Your task to perform on an android device: open the mobile data screen to see how much data has been used Image 0: 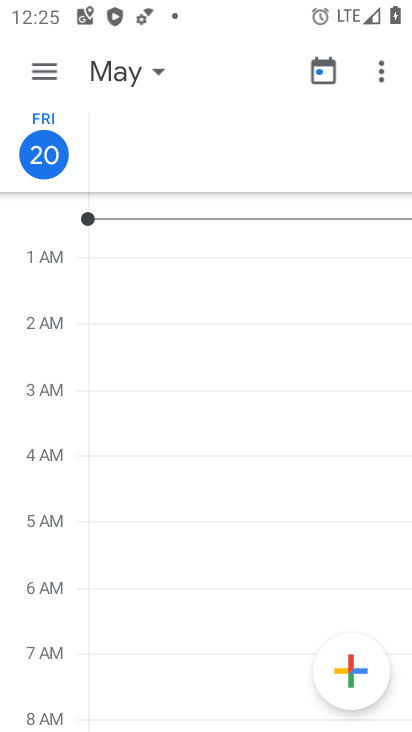
Step 0: press home button
Your task to perform on an android device: open the mobile data screen to see how much data has been used Image 1: 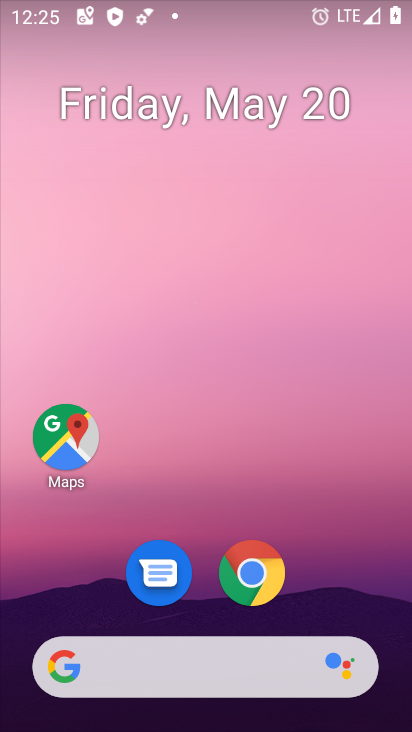
Step 1: drag from (211, 608) to (208, 155)
Your task to perform on an android device: open the mobile data screen to see how much data has been used Image 2: 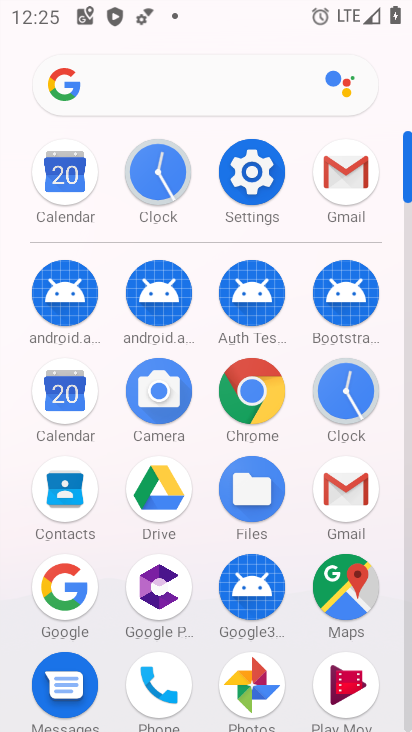
Step 2: click (228, 170)
Your task to perform on an android device: open the mobile data screen to see how much data has been used Image 3: 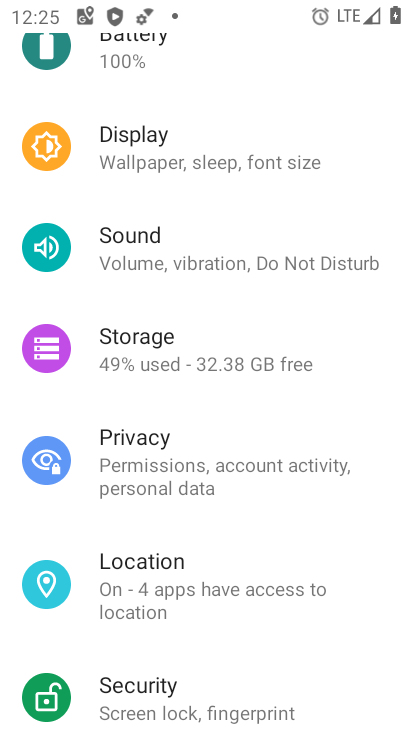
Step 3: drag from (204, 171) to (227, 505)
Your task to perform on an android device: open the mobile data screen to see how much data has been used Image 4: 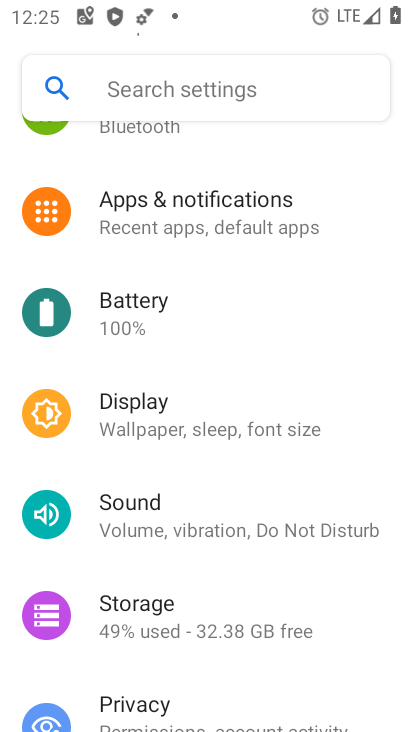
Step 4: drag from (218, 226) to (220, 558)
Your task to perform on an android device: open the mobile data screen to see how much data has been used Image 5: 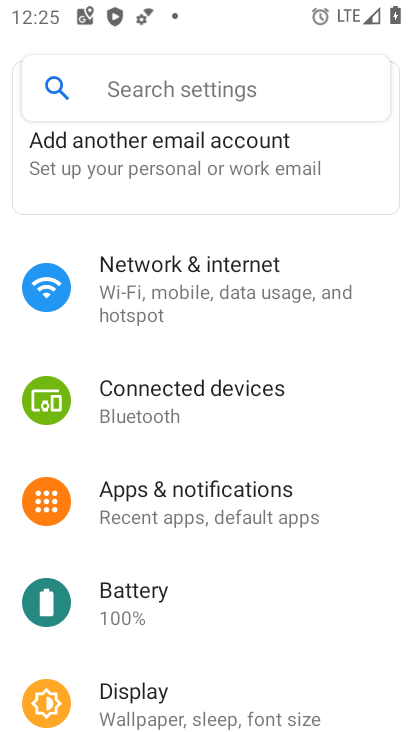
Step 5: click (204, 309)
Your task to perform on an android device: open the mobile data screen to see how much data has been used Image 6: 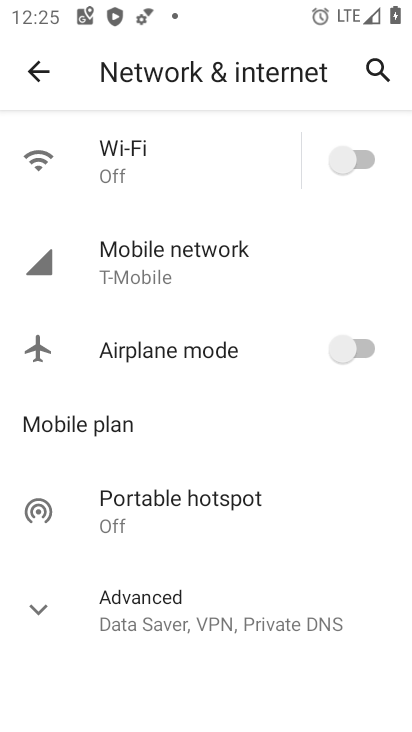
Step 6: click (204, 268)
Your task to perform on an android device: open the mobile data screen to see how much data has been used Image 7: 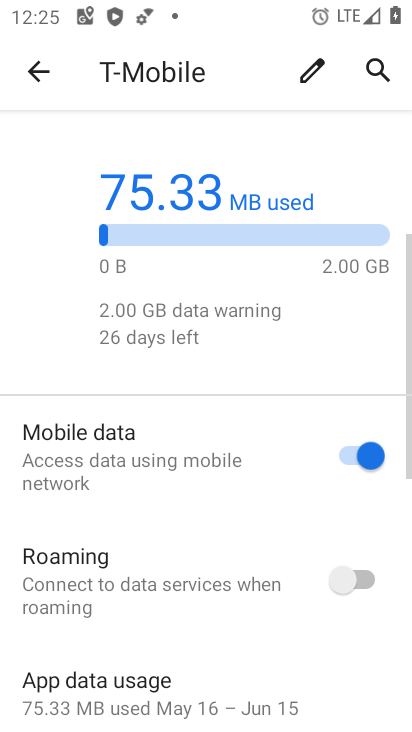
Step 7: drag from (226, 613) to (232, 383)
Your task to perform on an android device: open the mobile data screen to see how much data has been used Image 8: 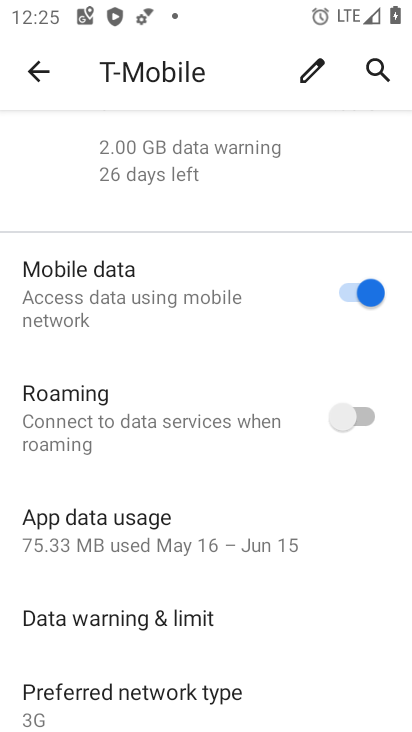
Step 8: click (200, 517)
Your task to perform on an android device: open the mobile data screen to see how much data has been used Image 9: 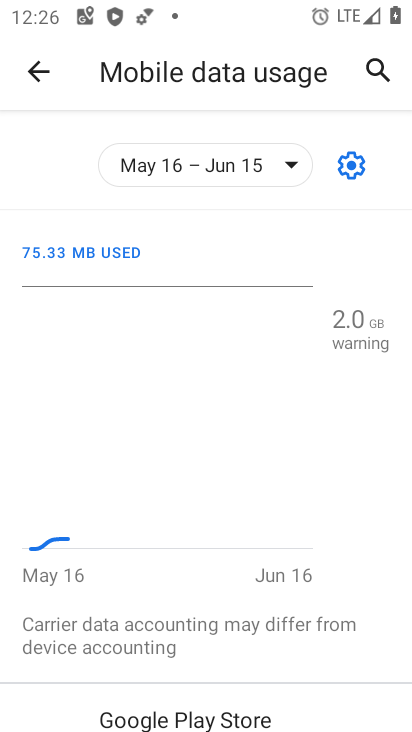
Step 9: task complete